Your task to perform on an android device: toggle wifi Image 0: 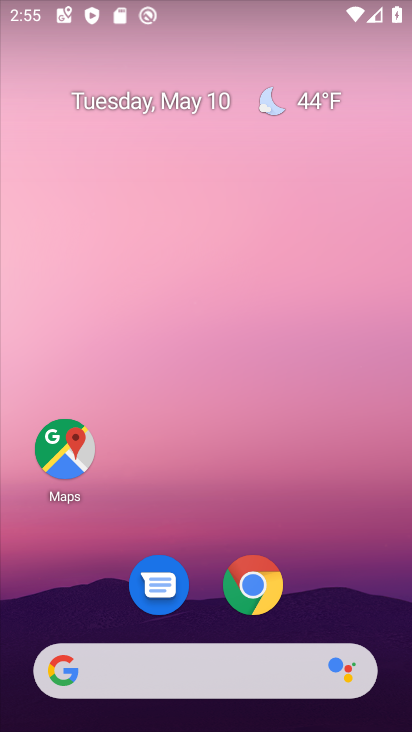
Step 0: drag from (223, 484) to (289, 60)
Your task to perform on an android device: toggle wifi Image 1: 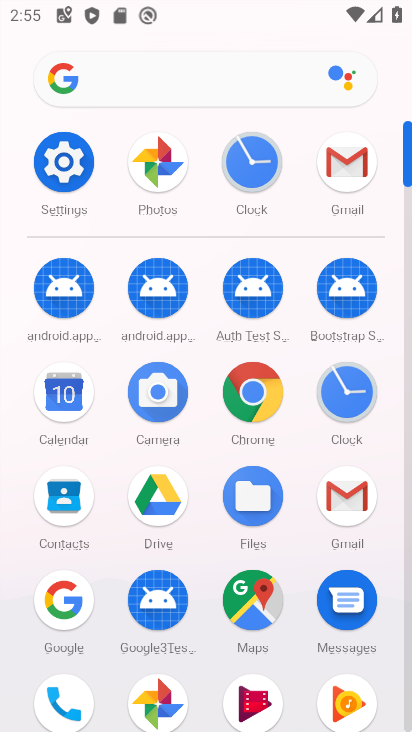
Step 1: click (67, 156)
Your task to perform on an android device: toggle wifi Image 2: 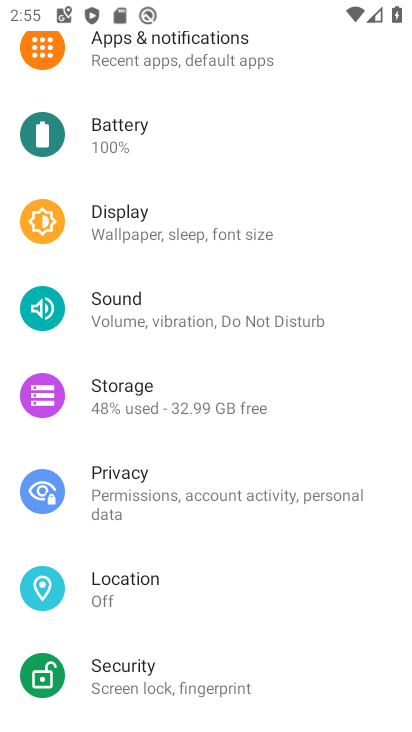
Step 2: drag from (231, 187) to (209, 559)
Your task to perform on an android device: toggle wifi Image 3: 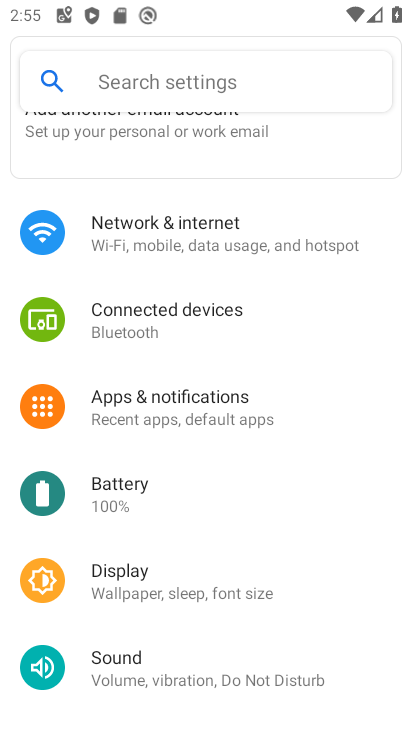
Step 3: click (227, 227)
Your task to perform on an android device: toggle wifi Image 4: 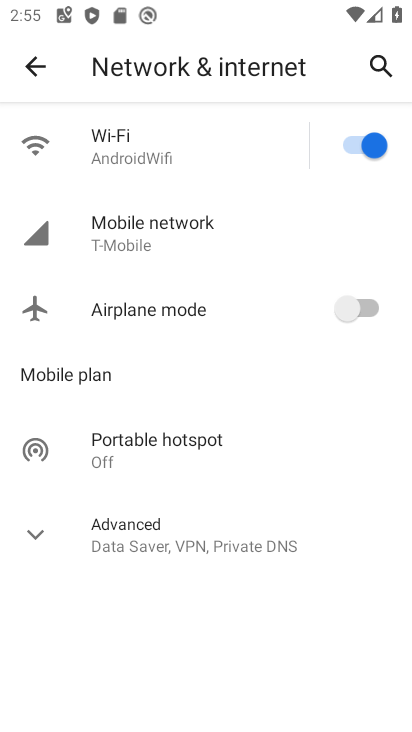
Step 4: click (348, 143)
Your task to perform on an android device: toggle wifi Image 5: 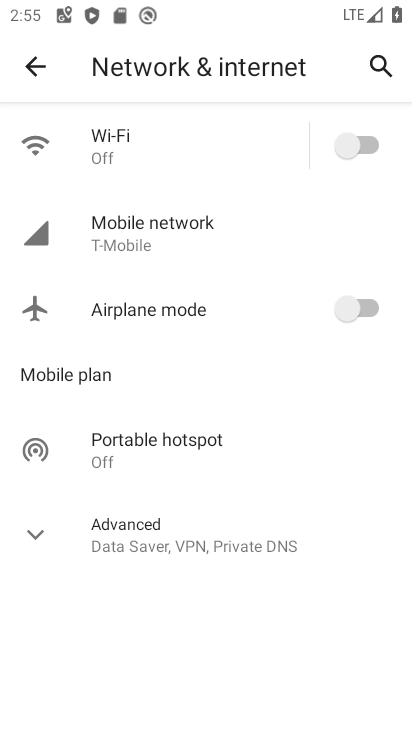
Step 5: task complete